Your task to perform on an android device: check data usage Image 0: 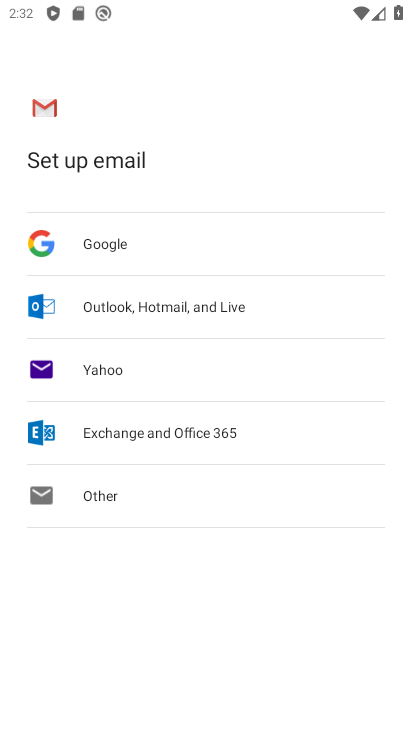
Step 0: press home button
Your task to perform on an android device: check data usage Image 1: 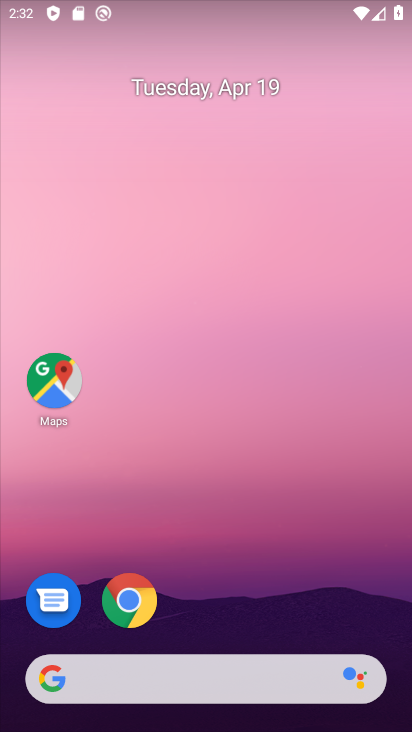
Step 1: drag from (253, 613) to (272, 19)
Your task to perform on an android device: check data usage Image 2: 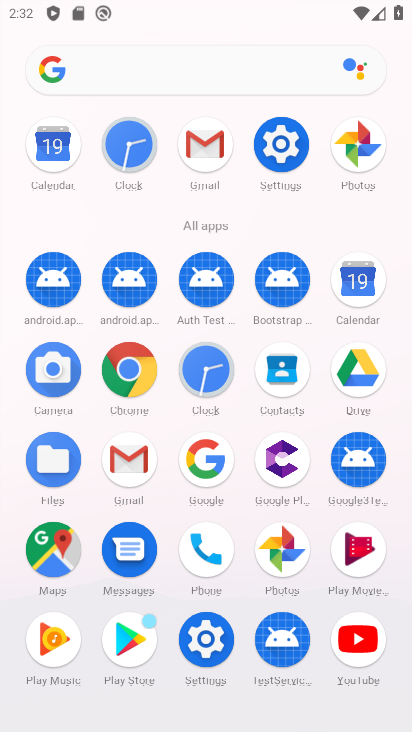
Step 2: click (204, 635)
Your task to perform on an android device: check data usage Image 3: 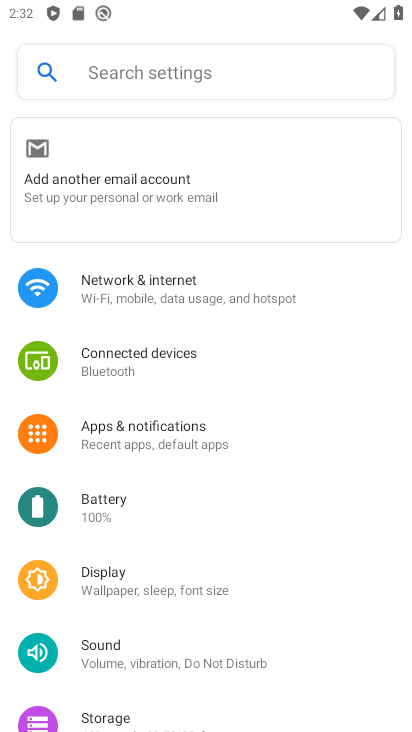
Step 3: click (130, 285)
Your task to perform on an android device: check data usage Image 4: 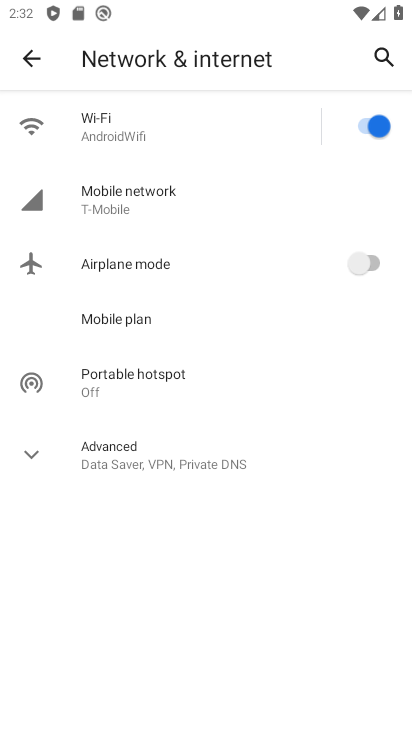
Step 4: click (106, 183)
Your task to perform on an android device: check data usage Image 5: 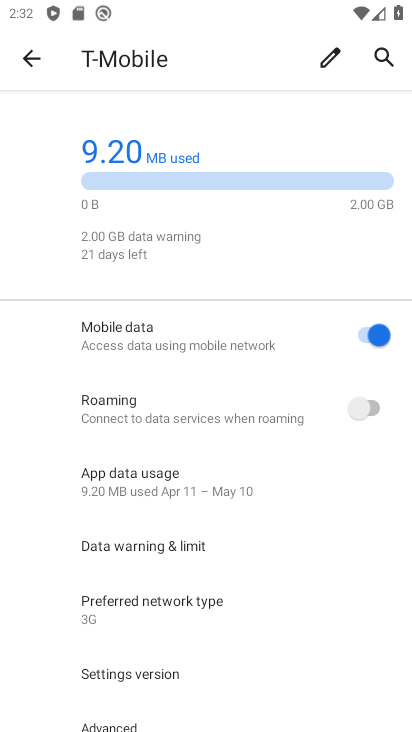
Step 5: task complete